Your task to perform on an android device: Show me popular games on the Play Store Image 0: 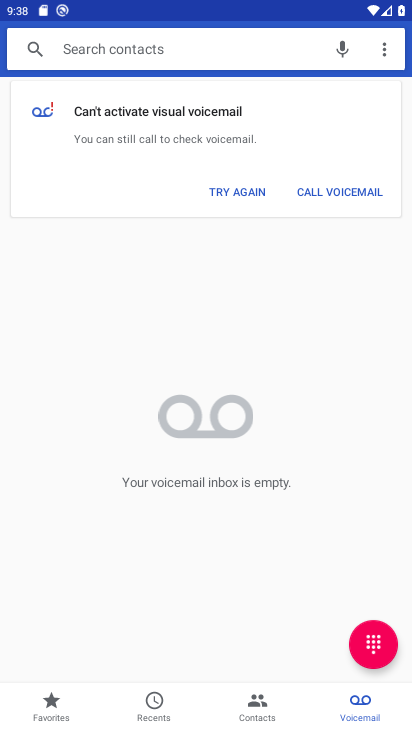
Step 0: press home button
Your task to perform on an android device: Show me popular games on the Play Store Image 1: 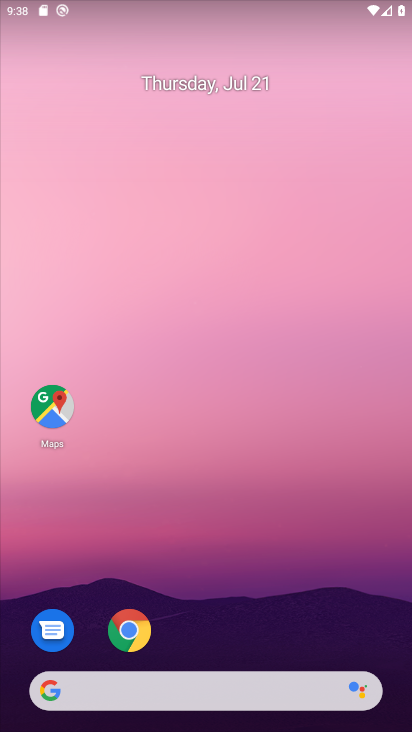
Step 1: drag from (284, 607) to (272, 88)
Your task to perform on an android device: Show me popular games on the Play Store Image 2: 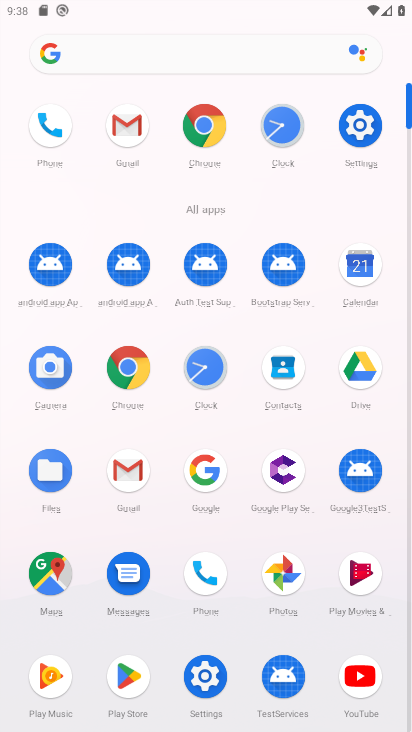
Step 2: click (122, 675)
Your task to perform on an android device: Show me popular games on the Play Store Image 3: 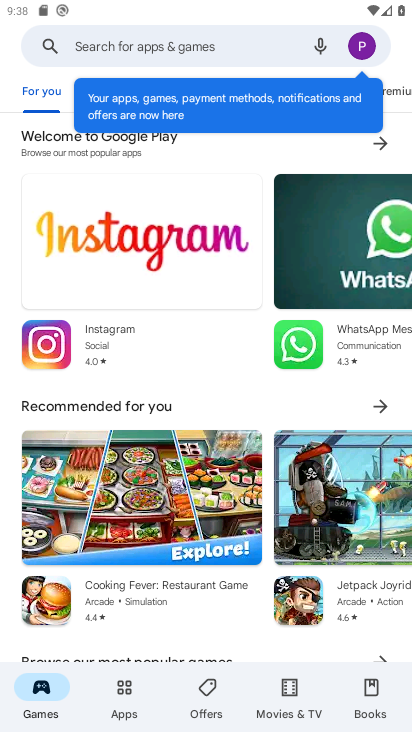
Step 3: click (51, 97)
Your task to perform on an android device: Show me popular games on the Play Store Image 4: 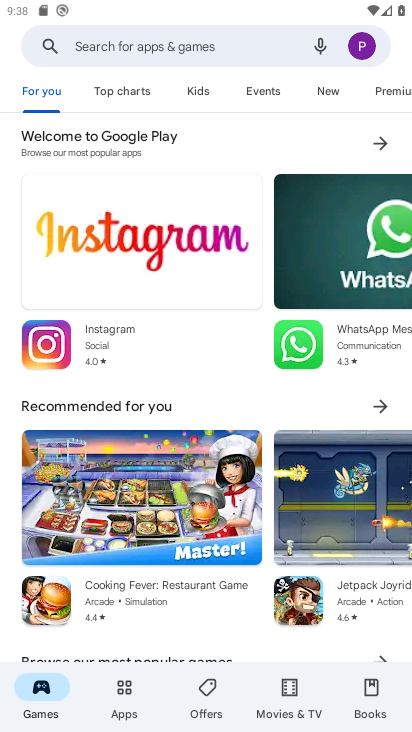
Step 4: click (120, 97)
Your task to perform on an android device: Show me popular games on the Play Store Image 5: 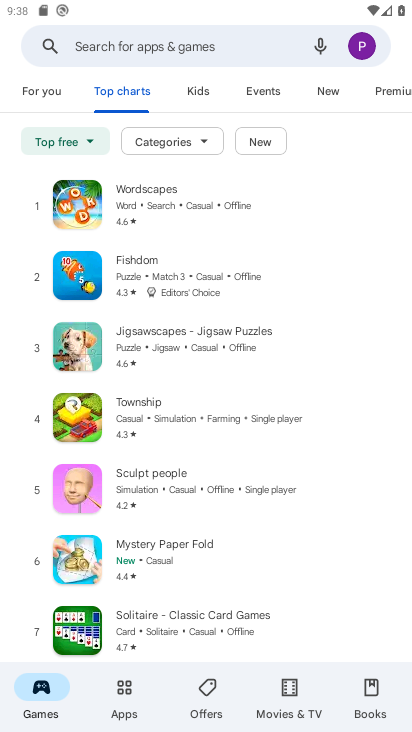
Step 5: task complete